Your task to perform on an android device: Play the last video I watched on Youtube Image 0: 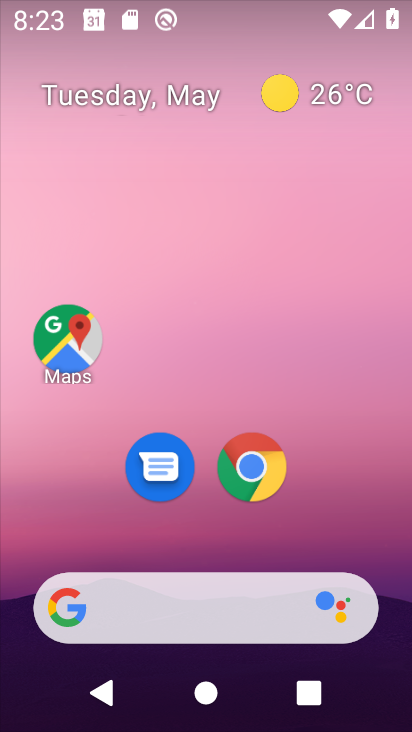
Step 0: drag from (392, 678) to (389, 126)
Your task to perform on an android device: Play the last video I watched on Youtube Image 1: 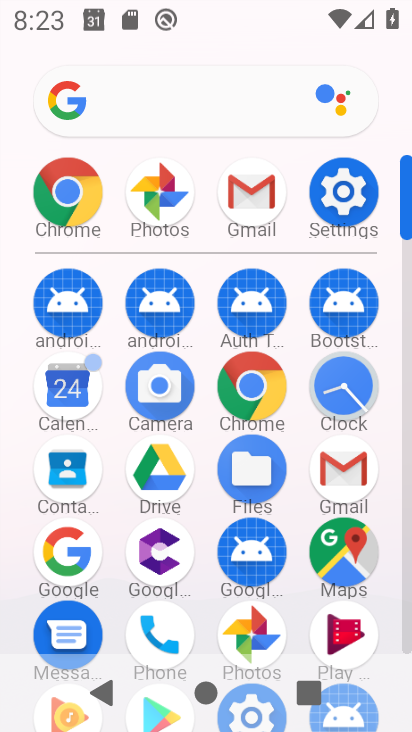
Step 1: drag from (410, 166) to (410, 88)
Your task to perform on an android device: Play the last video I watched on Youtube Image 2: 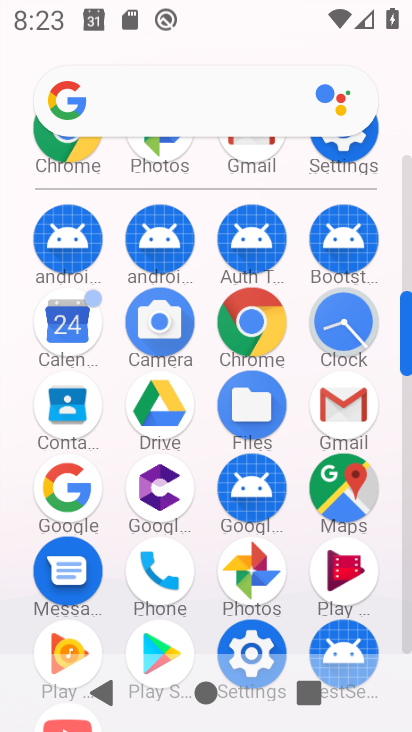
Step 2: drag from (405, 292) to (410, 194)
Your task to perform on an android device: Play the last video I watched on Youtube Image 3: 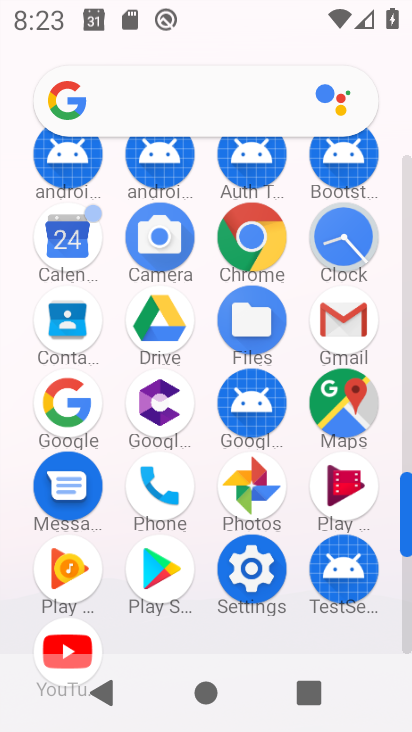
Step 3: click (71, 638)
Your task to perform on an android device: Play the last video I watched on Youtube Image 4: 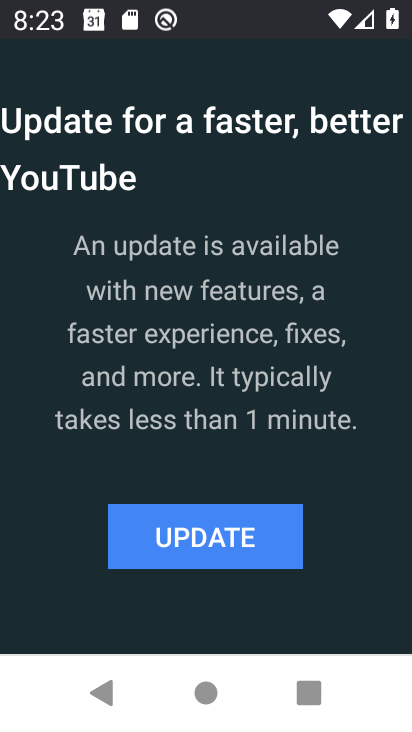
Step 4: click (213, 532)
Your task to perform on an android device: Play the last video I watched on Youtube Image 5: 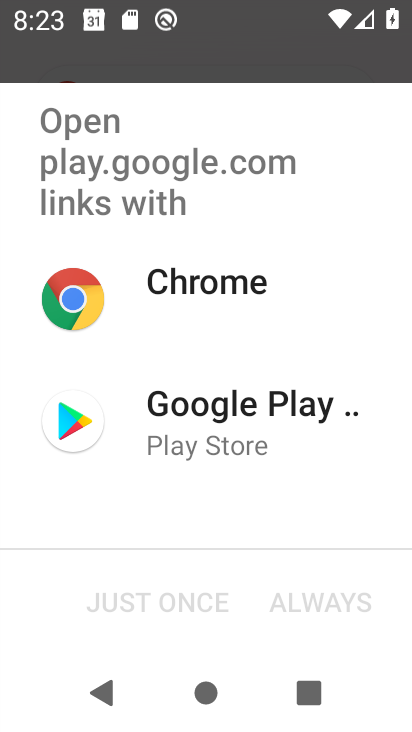
Step 5: click (173, 400)
Your task to perform on an android device: Play the last video I watched on Youtube Image 6: 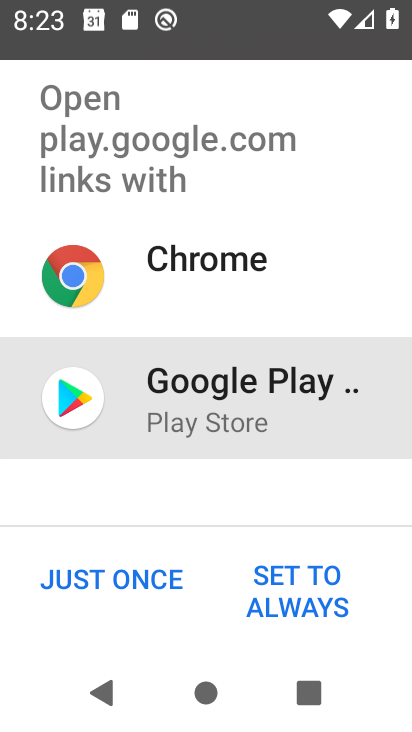
Step 6: click (141, 573)
Your task to perform on an android device: Play the last video I watched on Youtube Image 7: 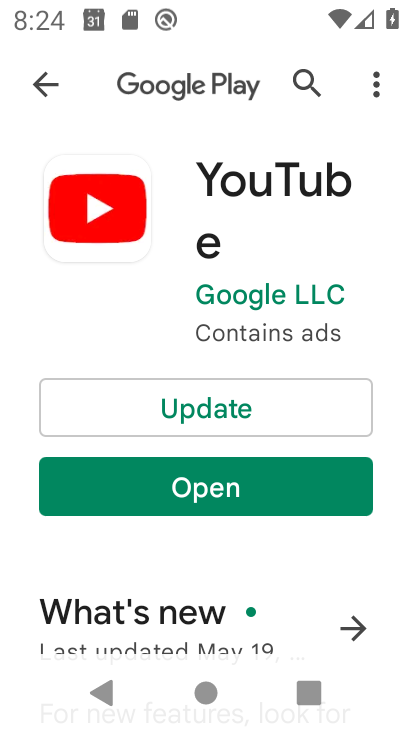
Step 7: click (170, 398)
Your task to perform on an android device: Play the last video I watched on Youtube Image 8: 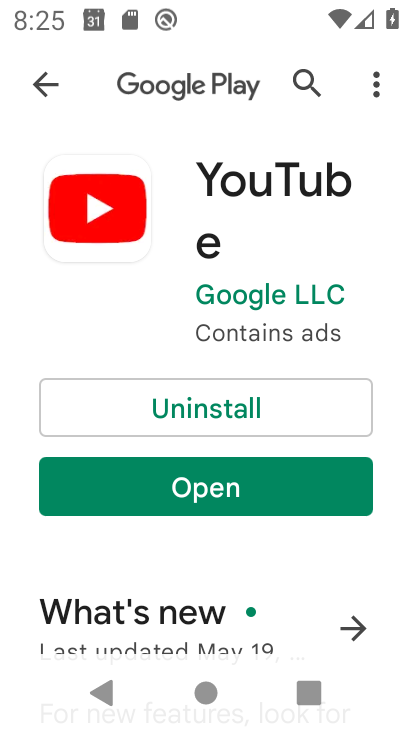
Step 8: click (147, 475)
Your task to perform on an android device: Play the last video I watched on Youtube Image 9: 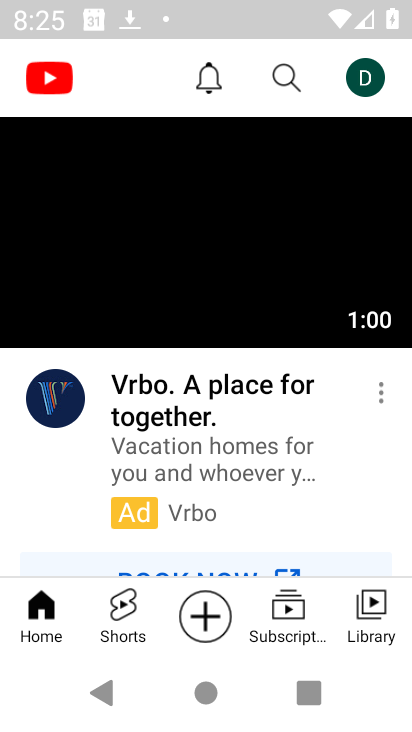
Step 9: drag from (260, 532) to (276, 265)
Your task to perform on an android device: Play the last video I watched on Youtube Image 10: 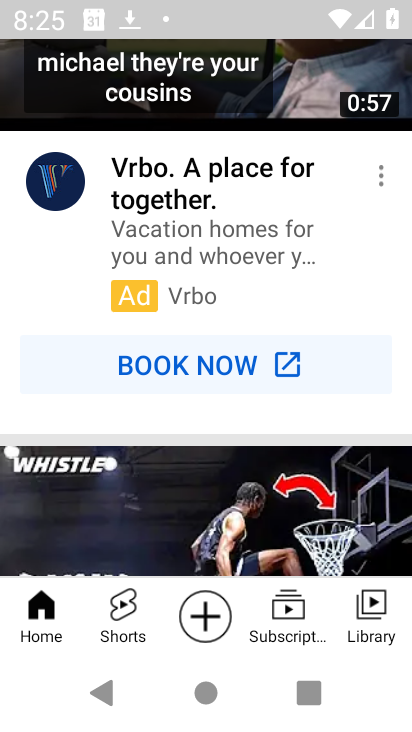
Step 10: drag from (240, 546) to (268, 193)
Your task to perform on an android device: Play the last video I watched on Youtube Image 11: 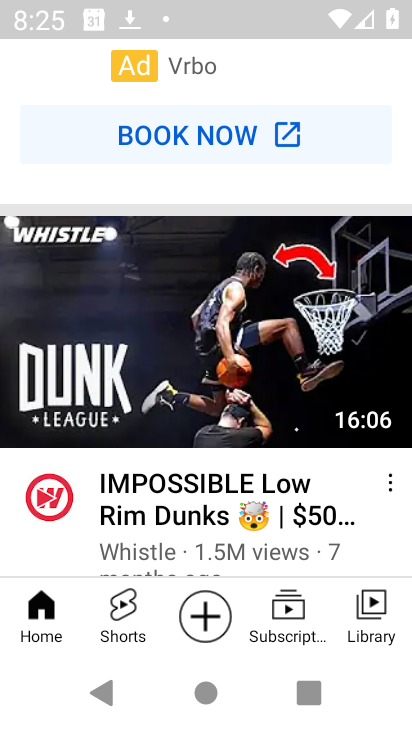
Step 11: drag from (206, 543) to (217, 288)
Your task to perform on an android device: Play the last video I watched on Youtube Image 12: 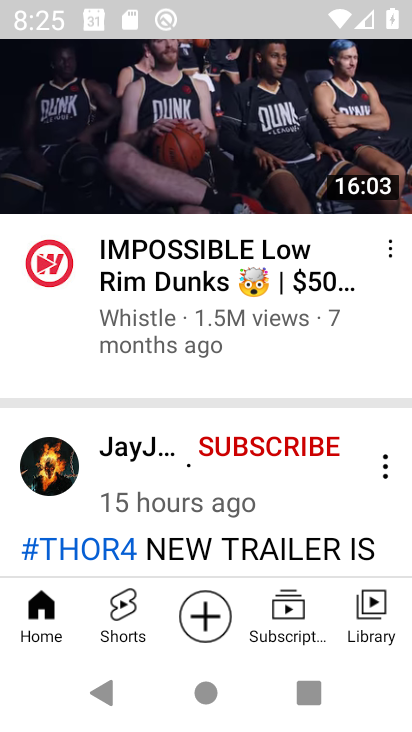
Step 12: click (366, 604)
Your task to perform on an android device: Play the last video I watched on Youtube Image 13: 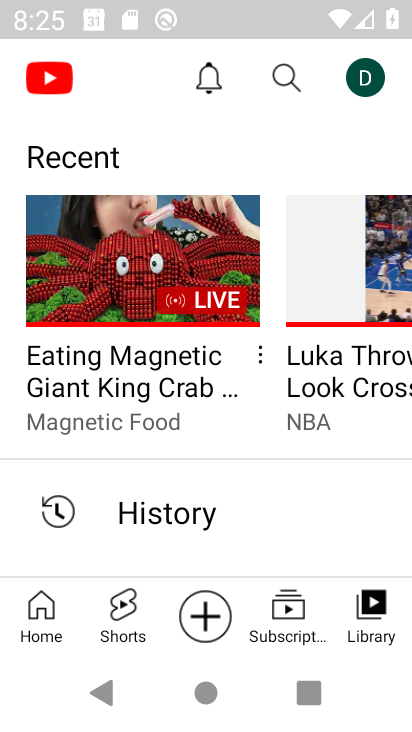
Step 13: click (150, 250)
Your task to perform on an android device: Play the last video I watched on Youtube Image 14: 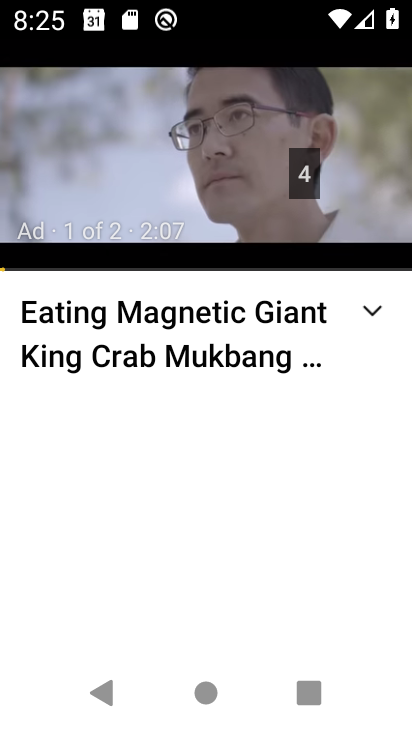
Step 14: task complete